Your task to perform on an android device: Open calendar and show me the third week of next month Image 0: 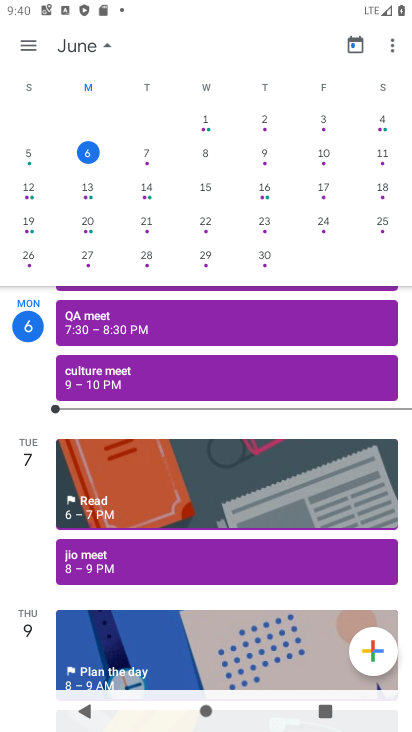
Step 0: drag from (218, 214) to (13, 497)
Your task to perform on an android device: Open calendar and show me the third week of next month Image 1: 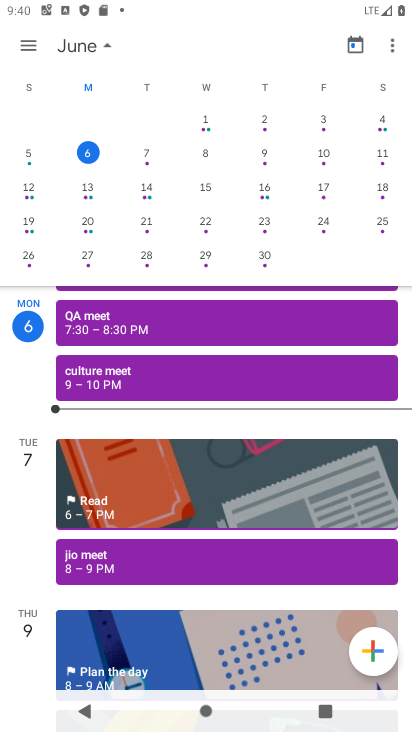
Step 1: click (156, 228)
Your task to perform on an android device: Open calendar and show me the third week of next month Image 2: 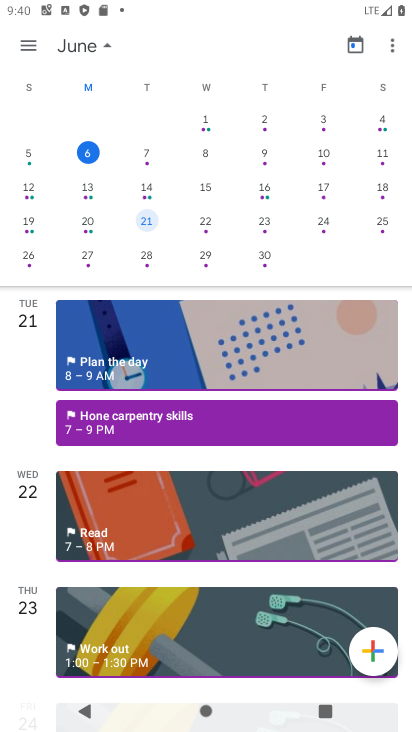
Step 2: task complete